Your task to perform on an android device: Open the stopwatch Image 0: 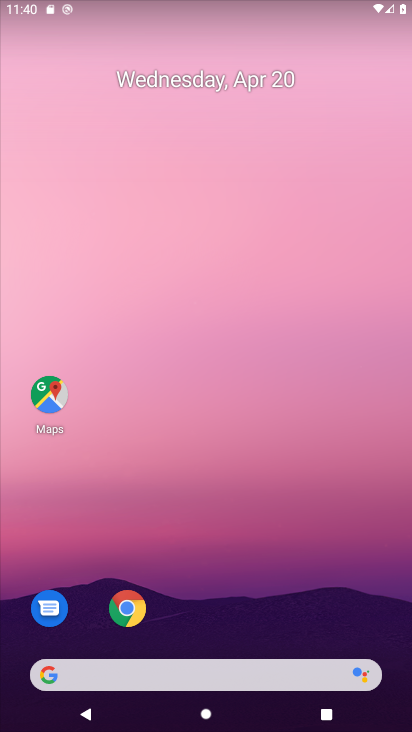
Step 0: drag from (203, 614) to (275, 115)
Your task to perform on an android device: Open the stopwatch Image 1: 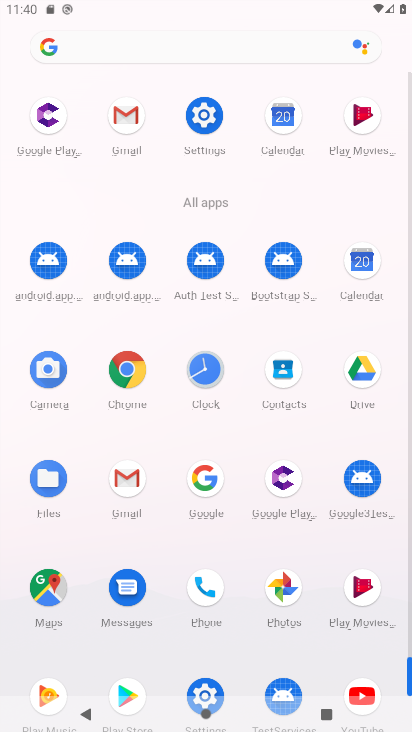
Step 1: click (210, 375)
Your task to perform on an android device: Open the stopwatch Image 2: 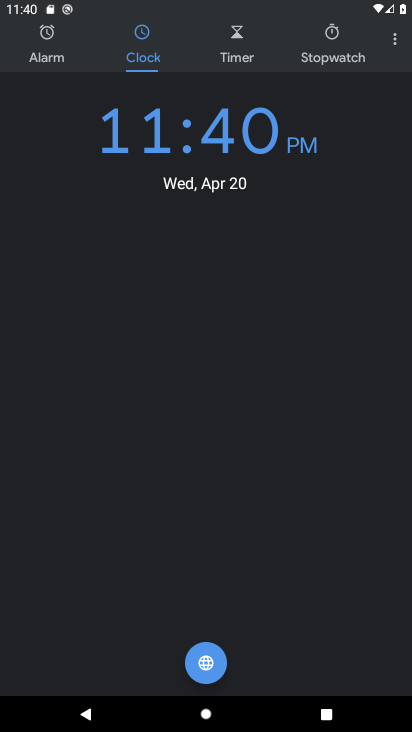
Step 2: click (321, 52)
Your task to perform on an android device: Open the stopwatch Image 3: 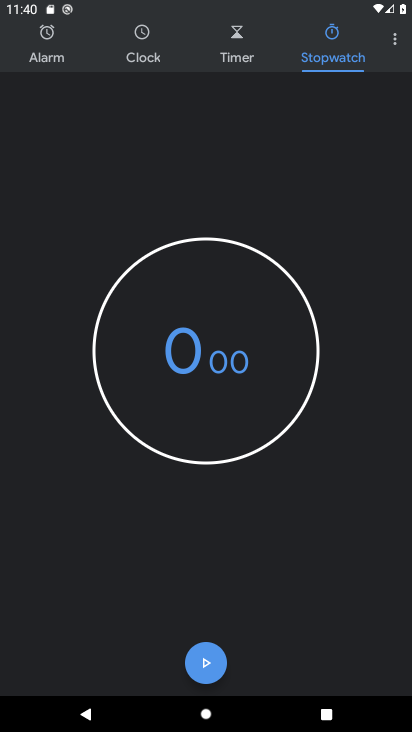
Step 3: task complete